Your task to perform on an android device: Open the calendar app, open the side menu, and click the "Day" option Image 0: 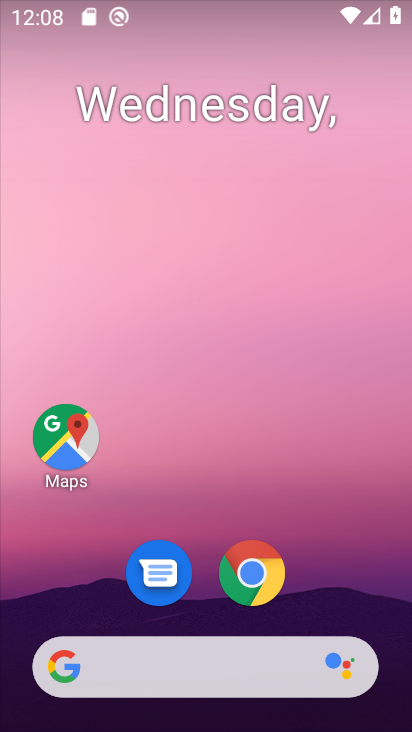
Step 0: drag from (71, 626) to (197, 179)
Your task to perform on an android device: Open the calendar app, open the side menu, and click the "Day" option Image 1: 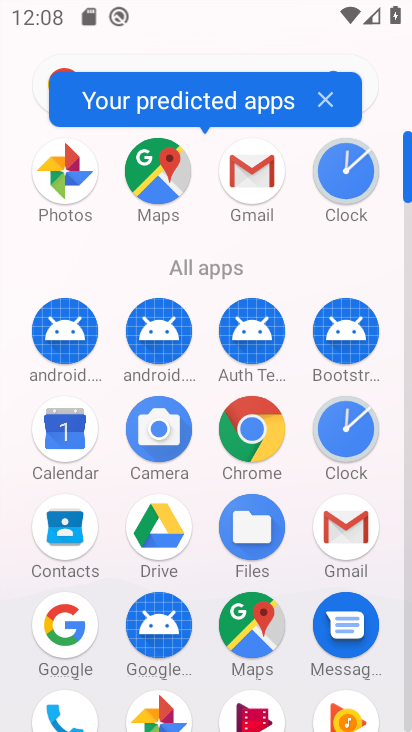
Step 1: click (59, 452)
Your task to perform on an android device: Open the calendar app, open the side menu, and click the "Day" option Image 2: 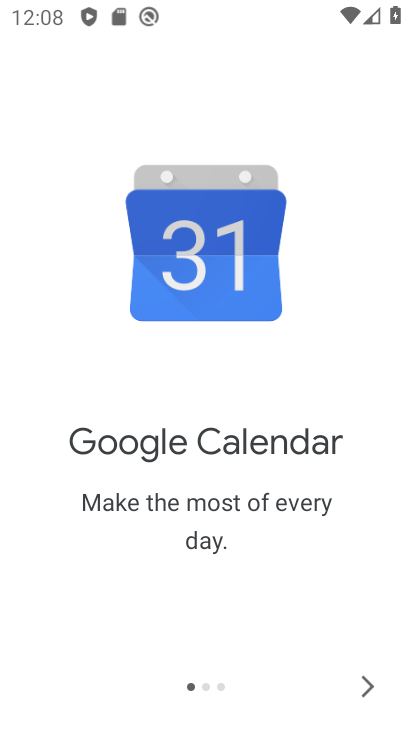
Step 2: click (366, 677)
Your task to perform on an android device: Open the calendar app, open the side menu, and click the "Day" option Image 3: 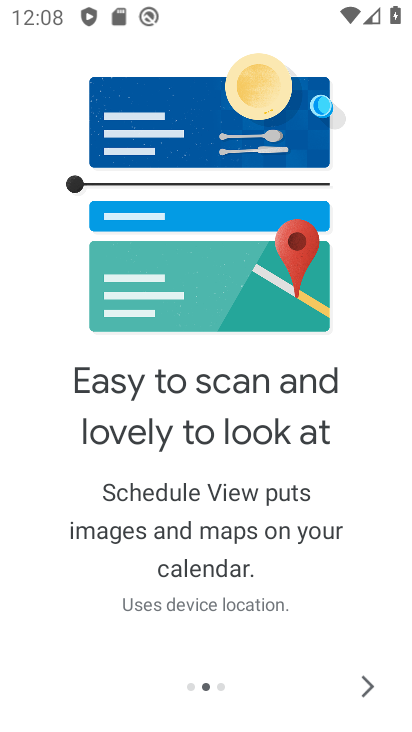
Step 3: click (366, 681)
Your task to perform on an android device: Open the calendar app, open the side menu, and click the "Day" option Image 4: 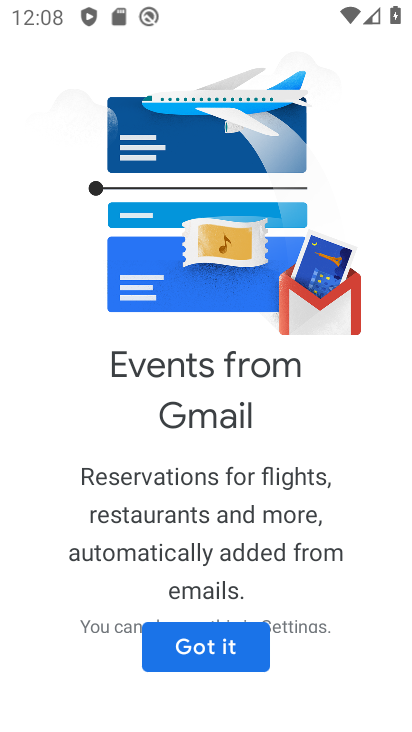
Step 4: click (366, 682)
Your task to perform on an android device: Open the calendar app, open the side menu, and click the "Day" option Image 5: 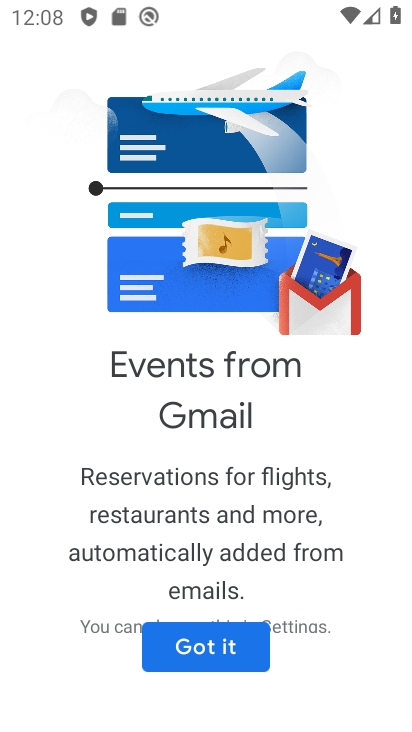
Step 5: click (228, 657)
Your task to perform on an android device: Open the calendar app, open the side menu, and click the "Day" option Image 6: 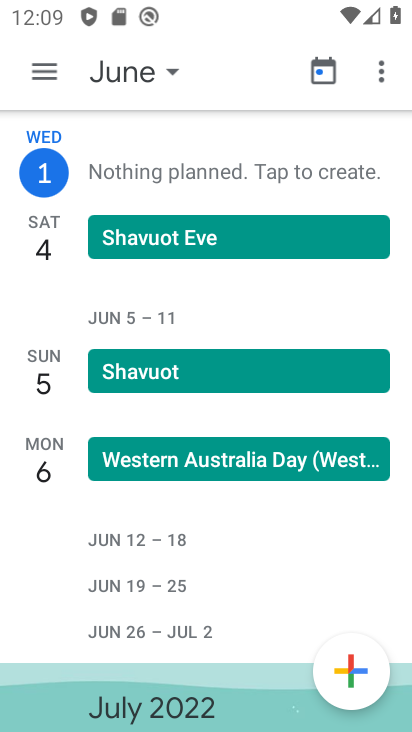
Step 6: click (40, 73)
Your task to perform on an android device: Open the calendar app, open the side menu, and click the "Day" option Image 7: 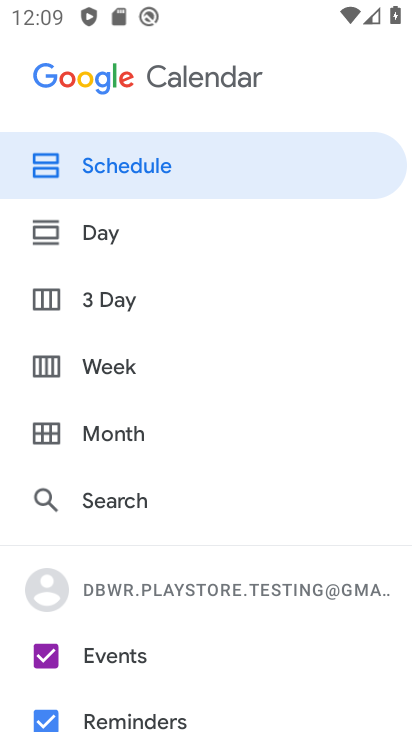
Step 7: click (126, 243)
Your task to perform on an android device: Open the calendar app, open the side menu, and click the "Day" option Image 8: 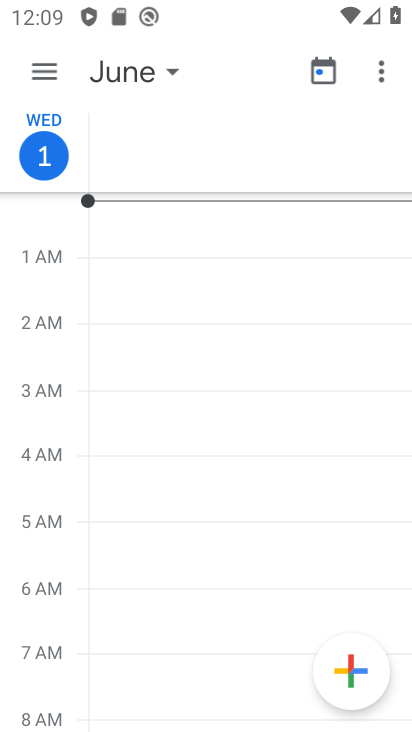
Step 8: click (59, 67)
Your task to perform on an android device: Open the calendar app, open the side menu, and click the "Day" option Image 9: 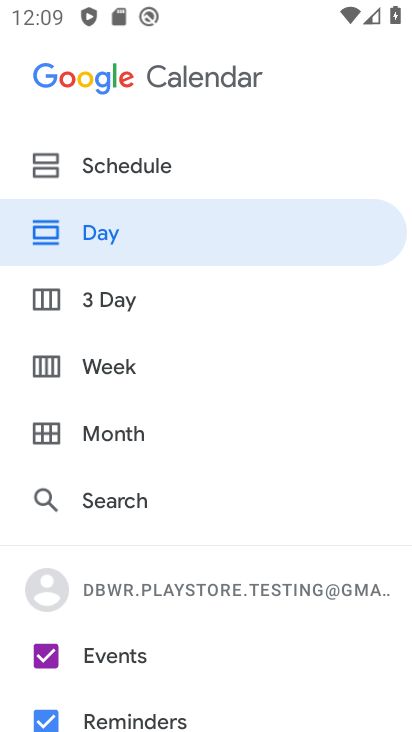
Step 9: task complete